Your task to perform on an android device: delete location history Image 0: 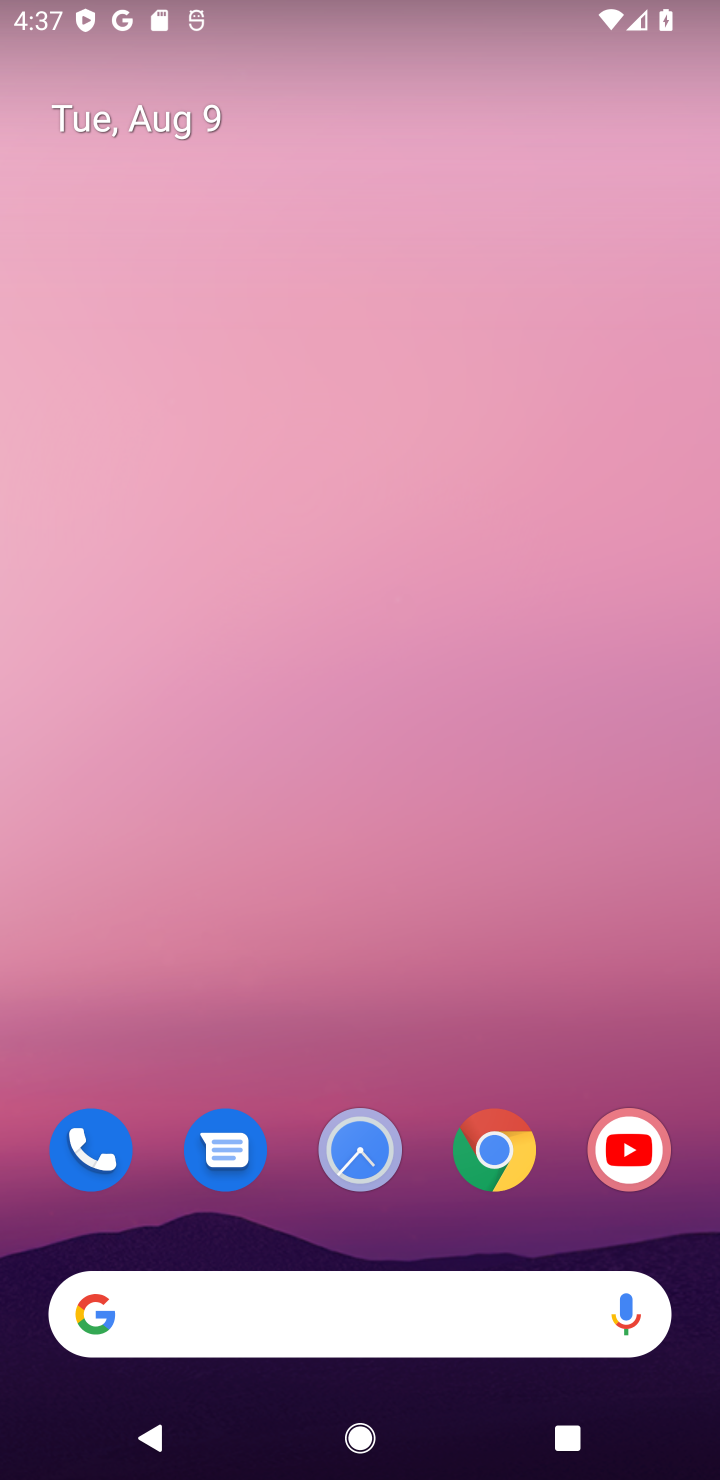
Step 0: drag from (356, 1044) to (319, 162)
Your task to perform on an android device: delete location history Image 1: 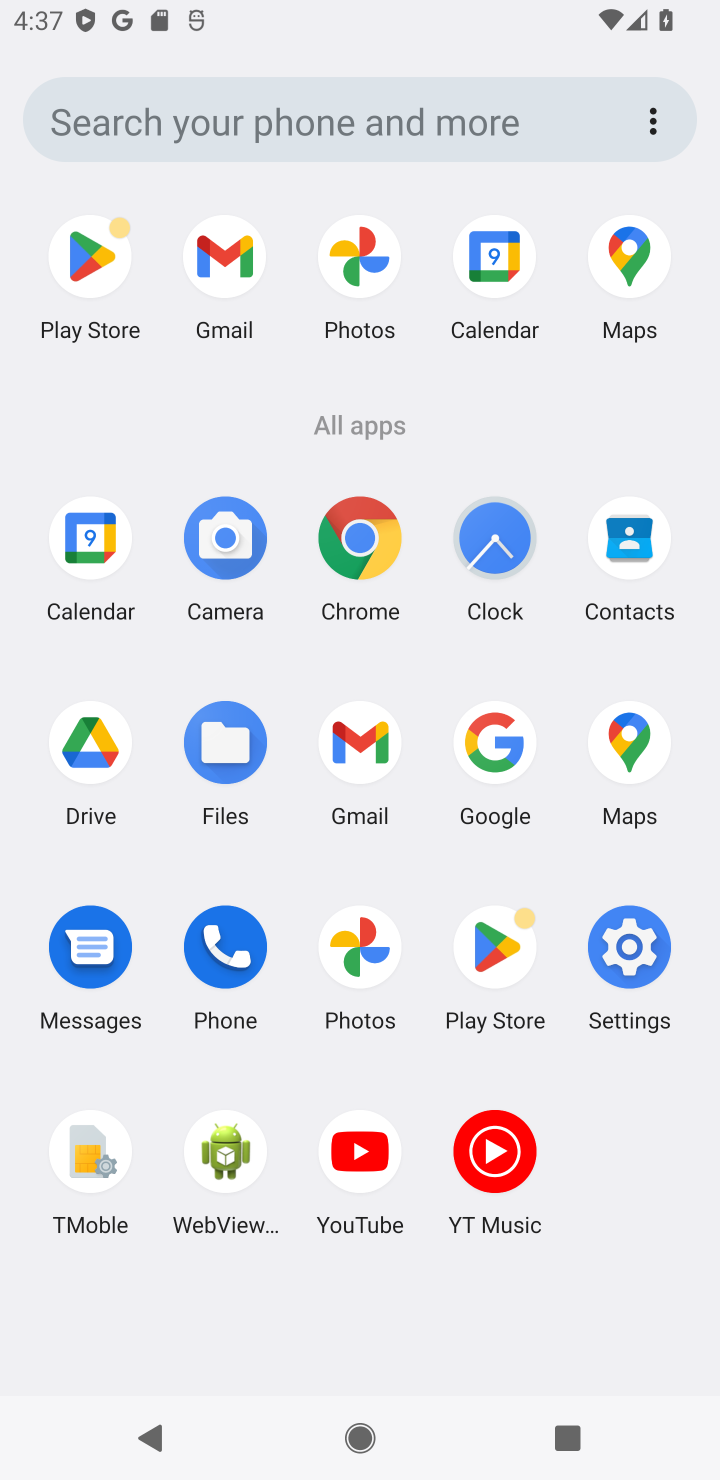
Step 1: click (604, 729)
Your task to perform on an android device: delete location history Image 2: 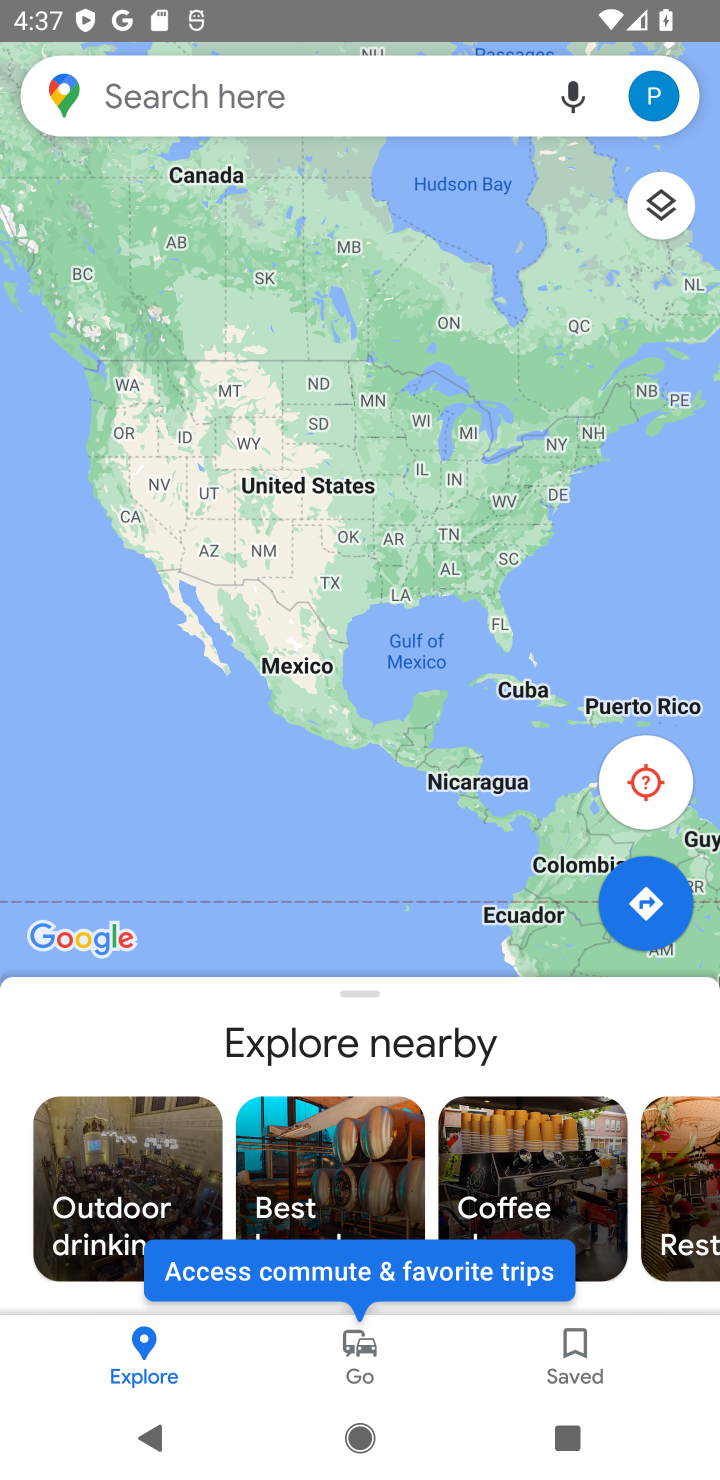
Step 2: click (654, 106)
Your task to perform on an android device: delete location history Image 3: 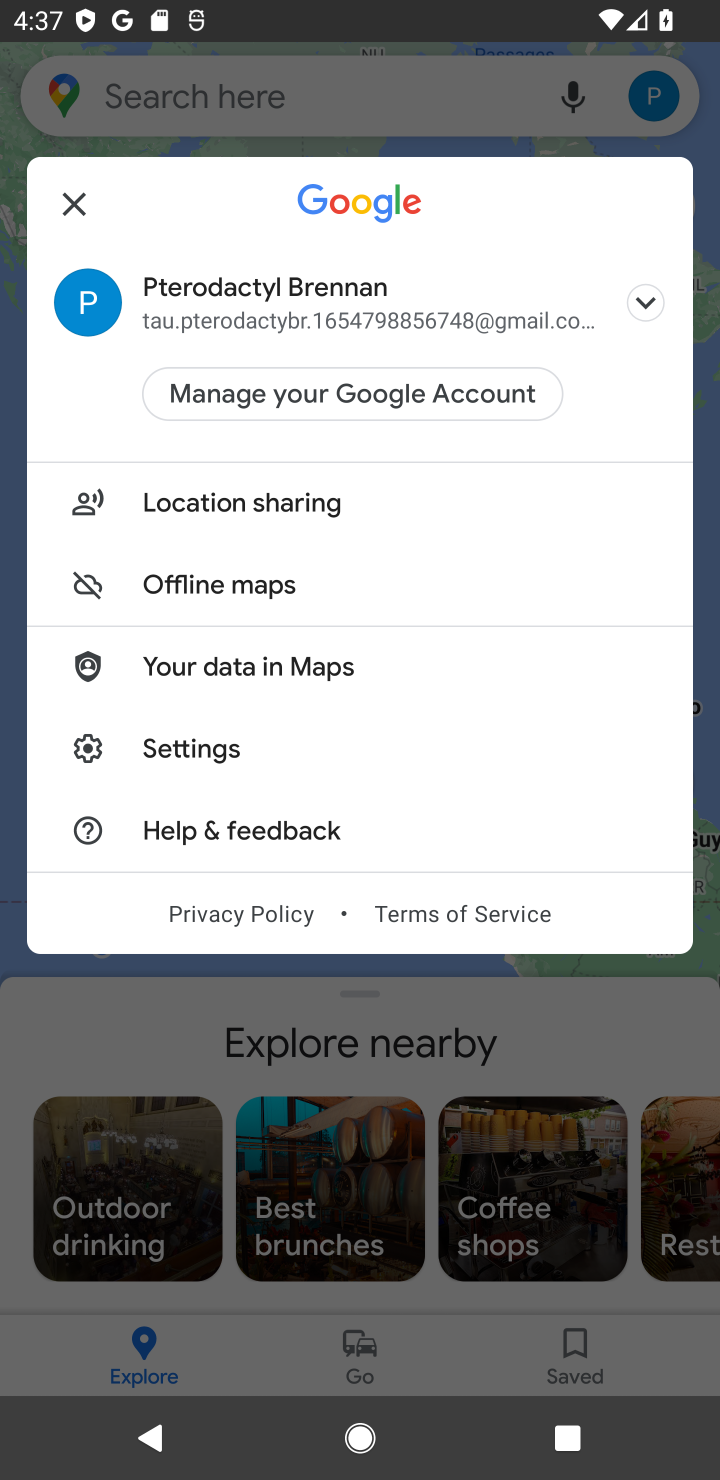
Step 3: click (240, 482)
Your task to perform on an android device: delete location history Image 4: 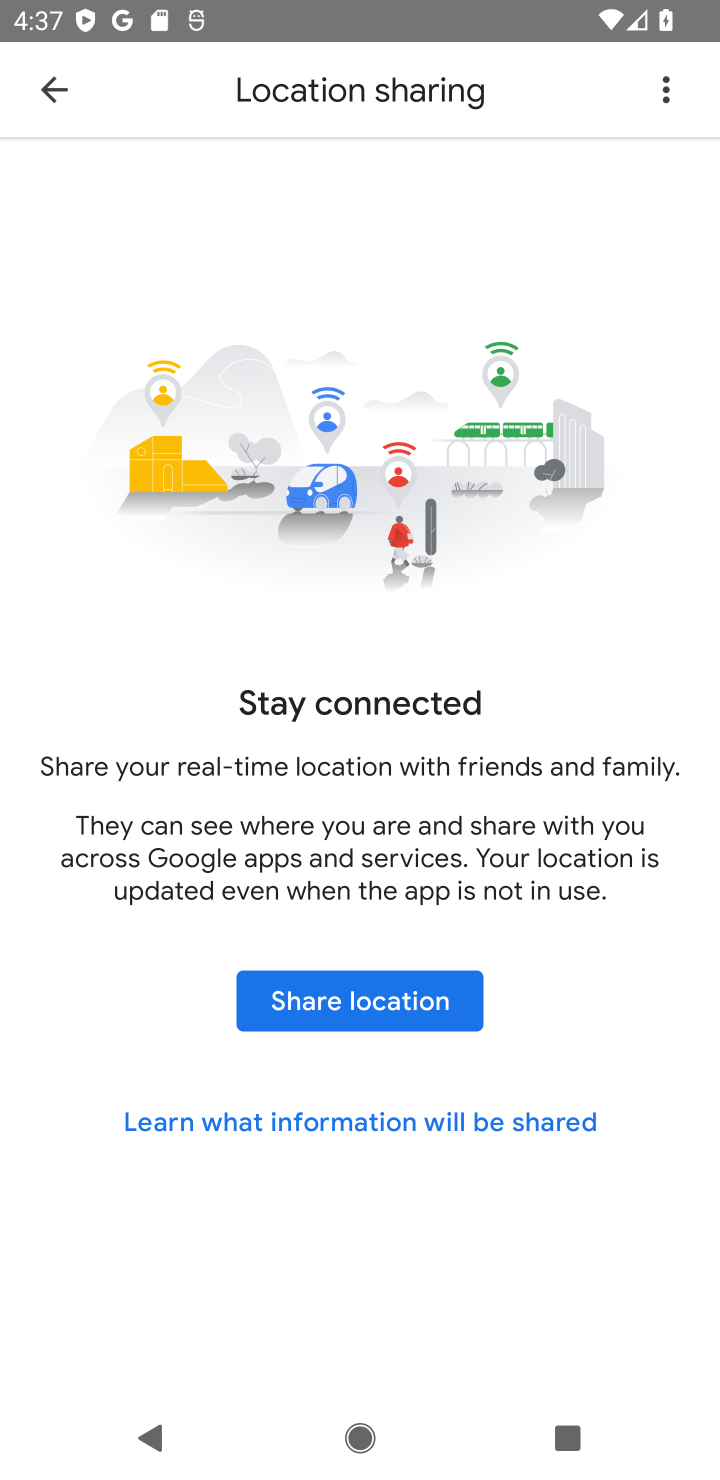
Step 4: click (336, 1126)
Your task to perform on an android device: delete location history Image 5: 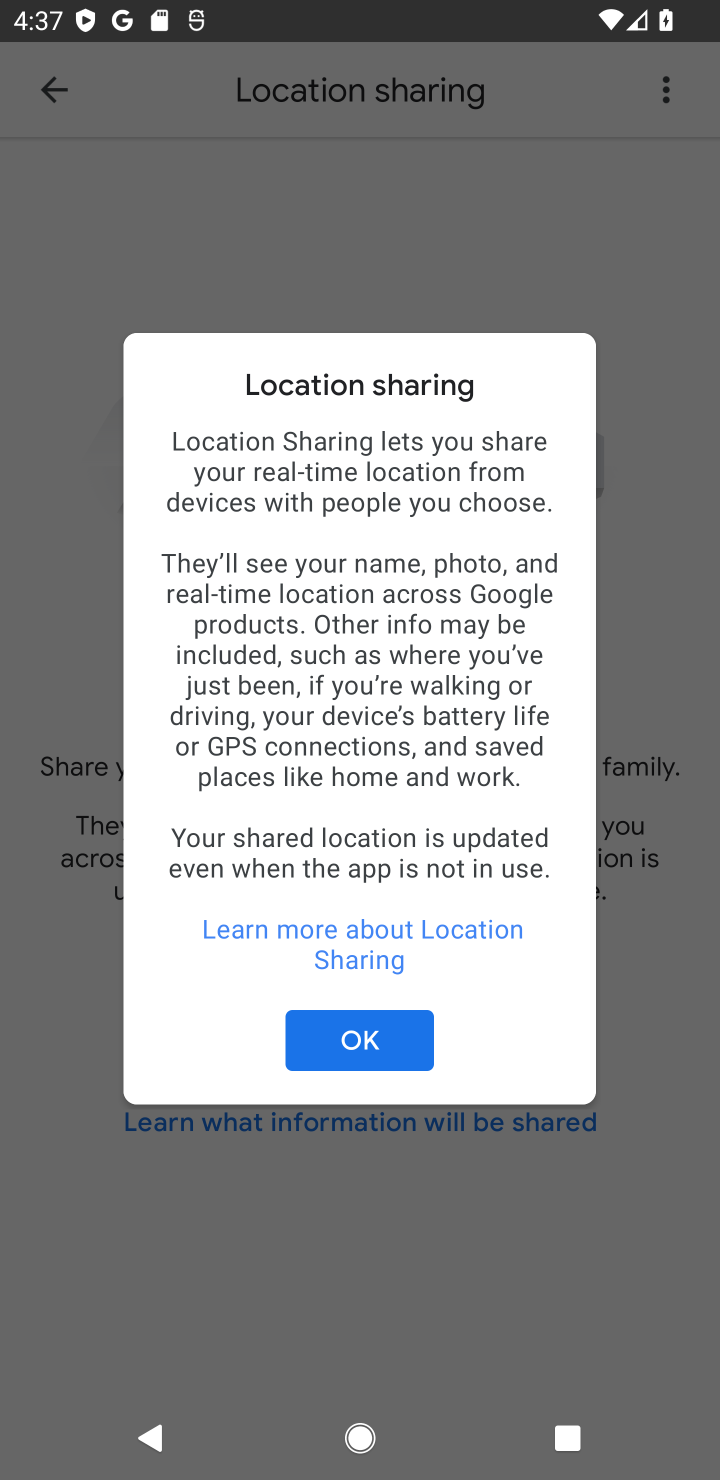
Step 5: click (346, 1056)
Your task to perform on an android device: delete location history Image 6: 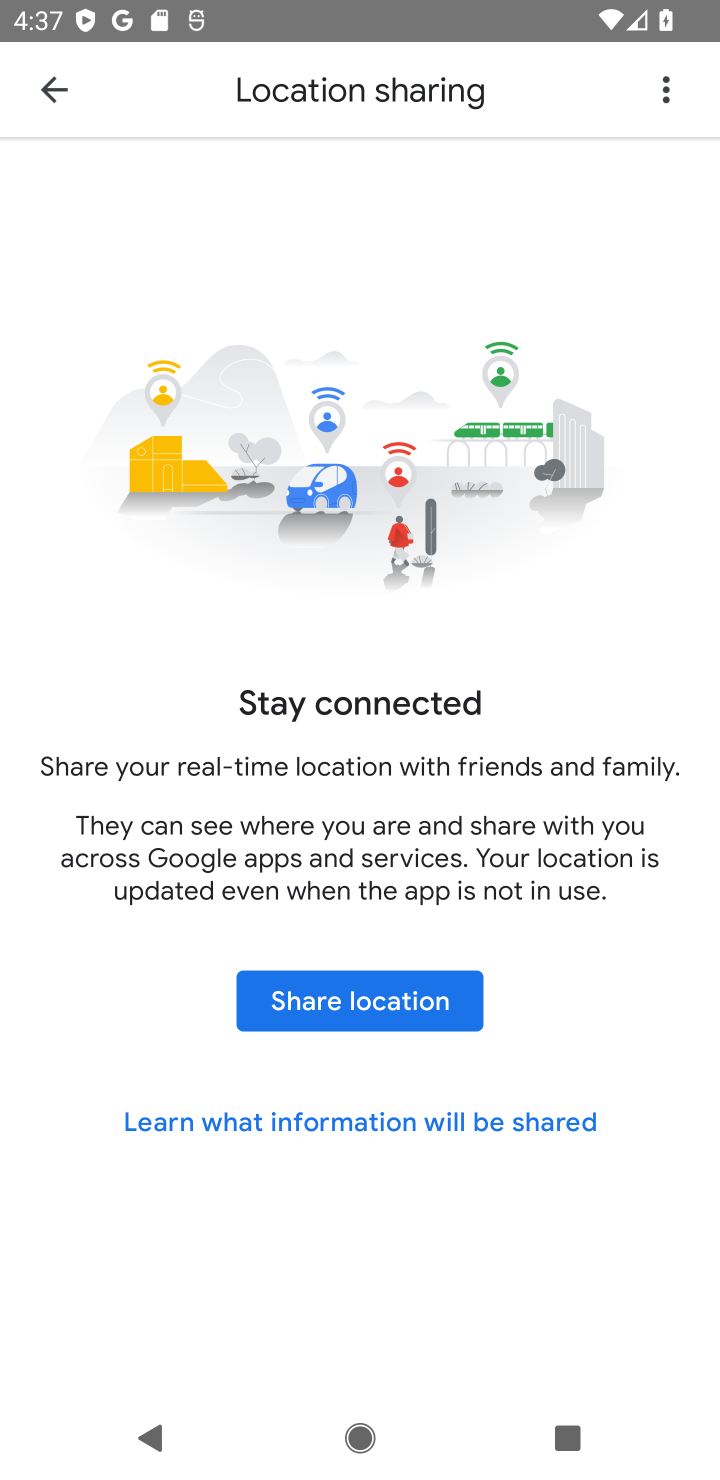
Step 6: task complete